Your task to perform on an android device: Open Amazon Image 0: 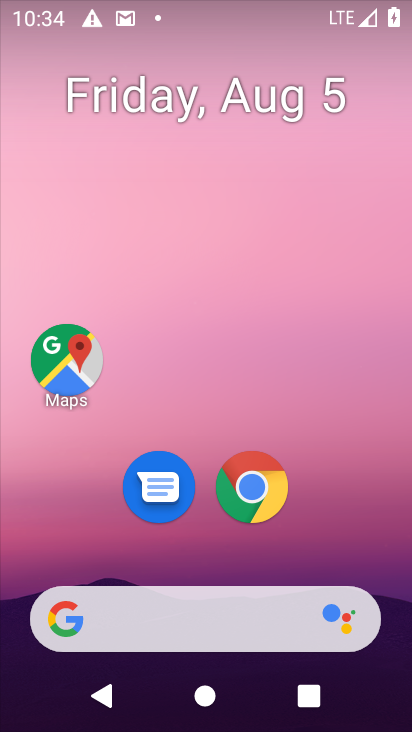
Step 0: click (251, 488)
Your task to perform on an android device: Open Amazon Image 1: 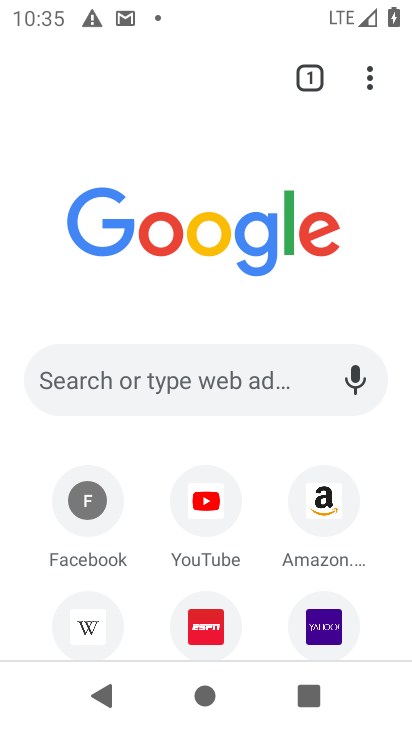
Step 1: click (318, 497)
Your task to perform on an android device: Open Amazon Image 2: 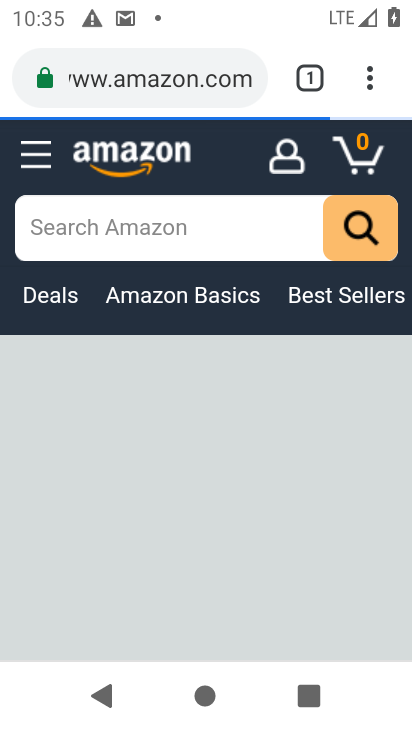
Step 2: task complete